Your task to perform on an android device: stop showing notifications on the lock screen Image 0: 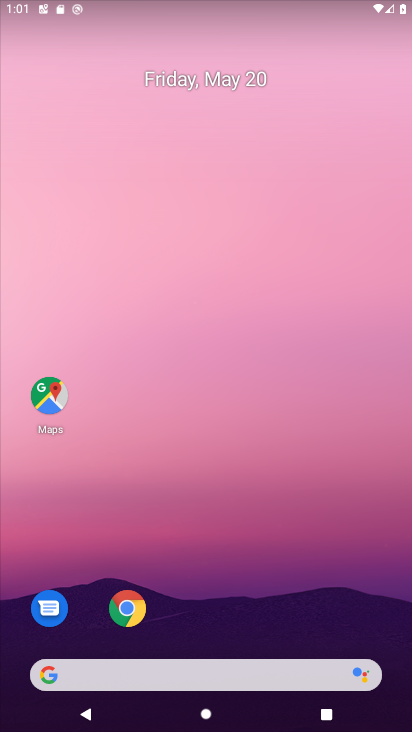
Step 0: drag from (234, 459) to (234, 115)
Your task to perform on an android device: stop showing notifications on the lock screen Image 1: 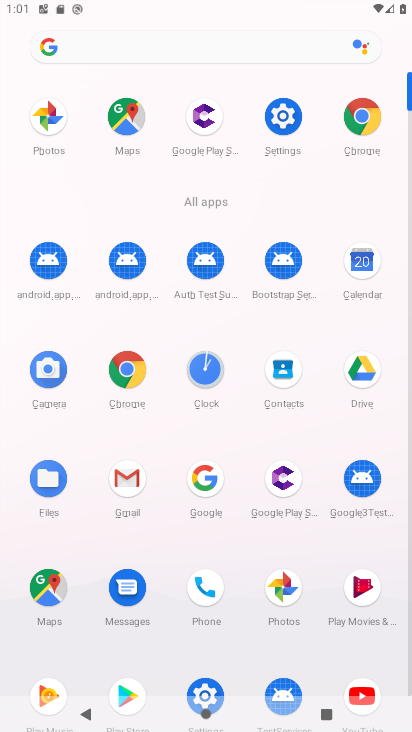
Step 1: click (283, 119)
Your task to perform on an android device: stop showing notifications on the lock screen Image 2: 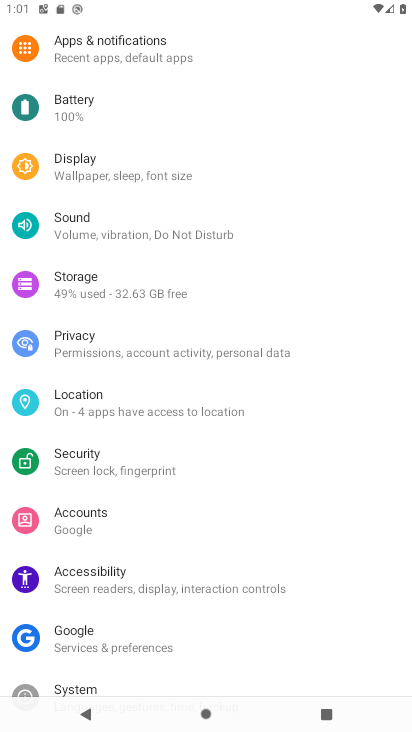
Step 2: click (168, 57)
Your task to perform on an android device: stop showing notifications on the lock screen Image 3: 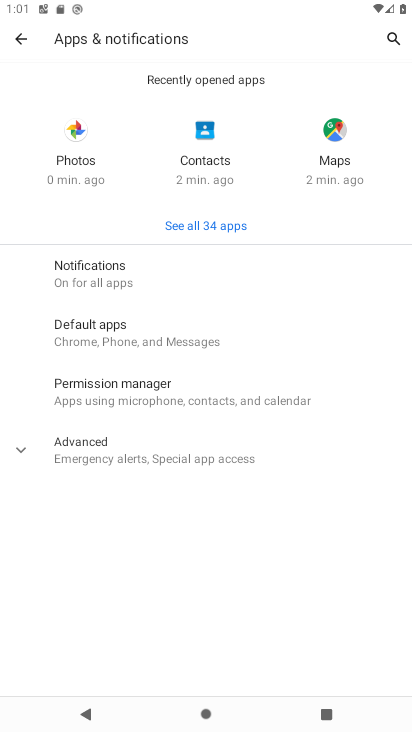
Step 3: click (125, 268)
Your task to perform on an android device: stop showing notifications on the lock screen Image 4: 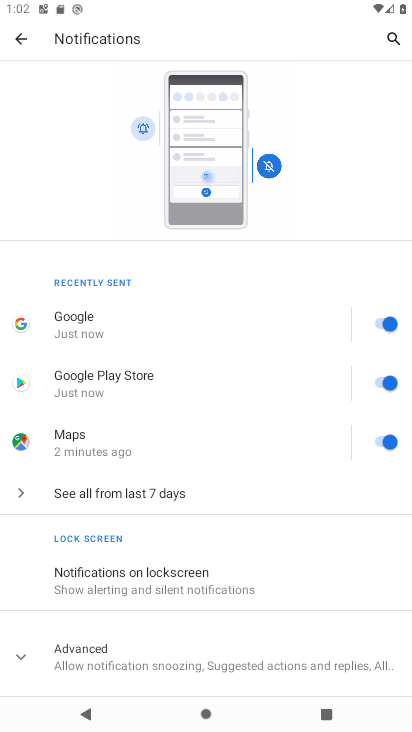
Step 4: click (145, 571)
Your task to perform on an android device: stop showing notifications on the lock screen Image 5: 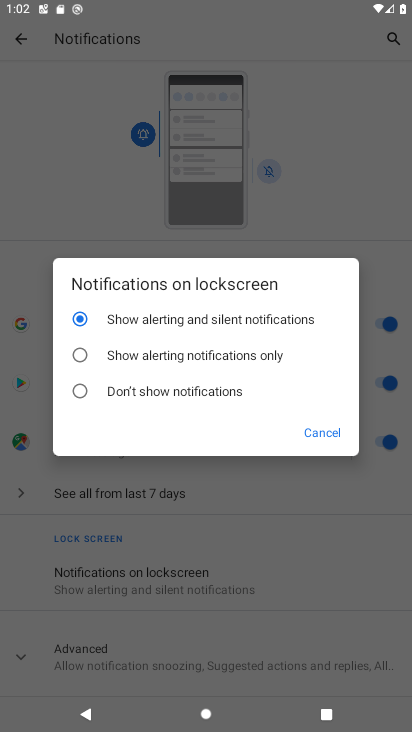
Step 5: click (136, 398)
Your task to perform on an android device: stop showing notifications on the lock screen Image 6: 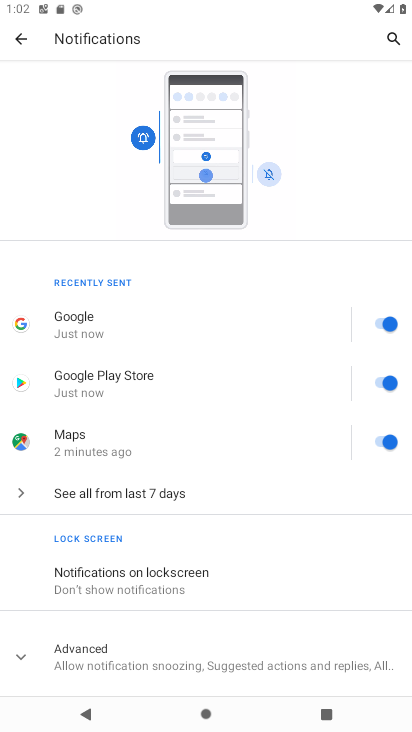
Step 6: task complete